Your task to perform on an android device: What's the weather going to be tomorrow? Image 0: 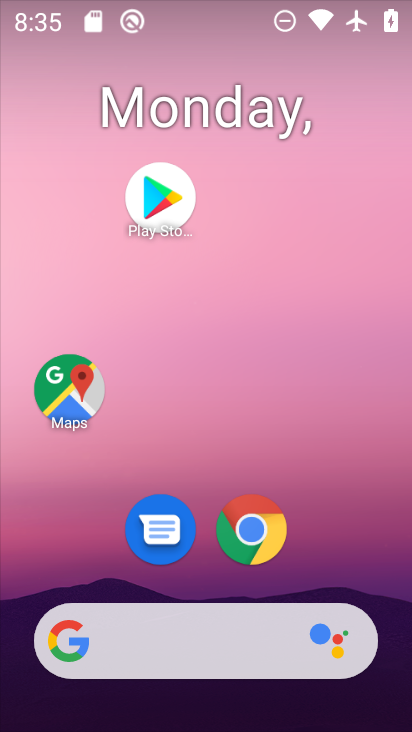
Step 0: click (175, 649)
Your task to perform on an android device: What's the weather going to be tomorrow? Image 1: 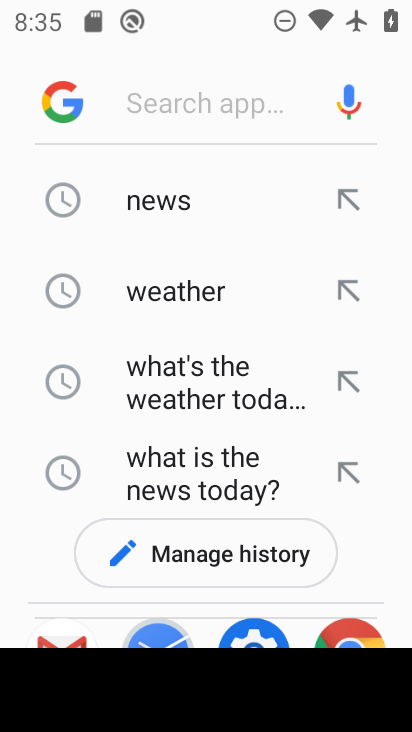
Step 1: click (185, 294)
Your task to perform on an android device: What's the weather going to be tomorrow? Image 2: 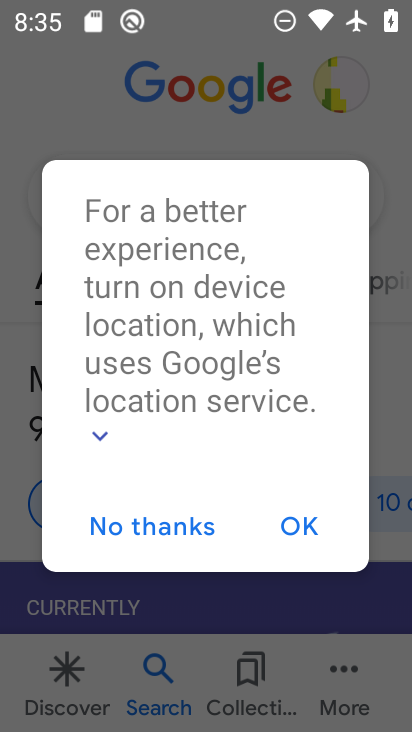
Step 2: click (307, 527)
Your task to perform on an android device: What's the weather going to be tomorrow? Image 3: 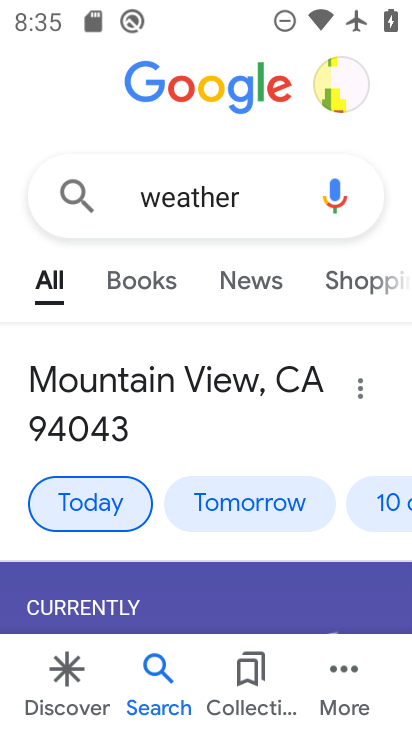
Step 3: click (239, 491)
Your task to perform on an android device: What's the weather going to be tomorrow? Image 4: 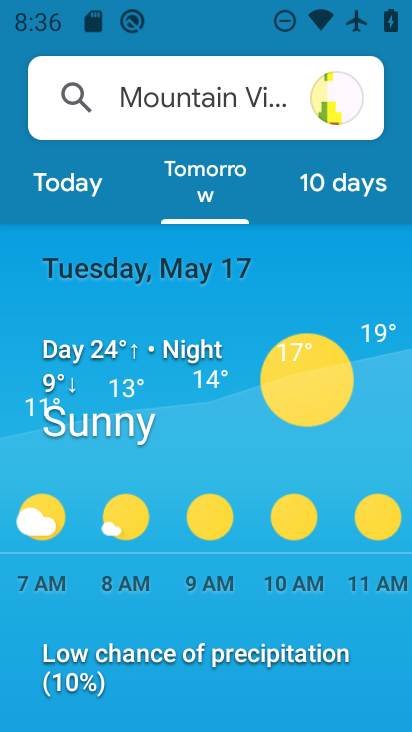
Step 4: task complete